Your task to perform on an android device: Open the map Image 0: 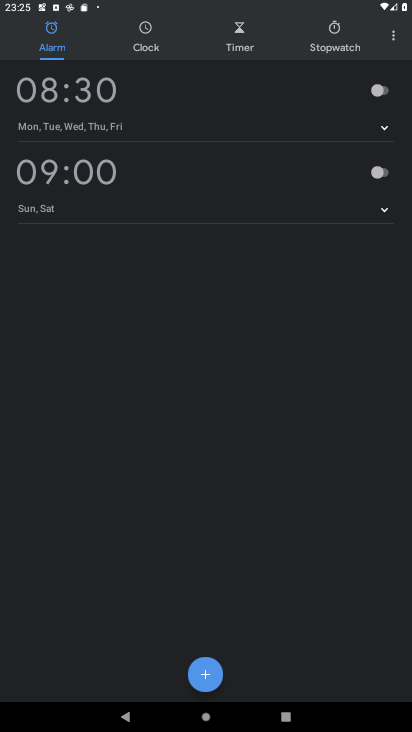
Step 0: press home button
Your task to perform on an android device: Open the map Image 1: 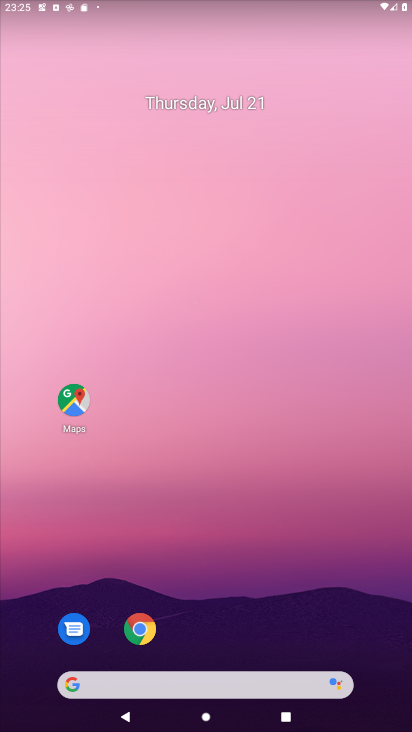
Step 1: drag from (216, 623) to (194, 86)
Your task to perform on an android device: Open the map Image 2: 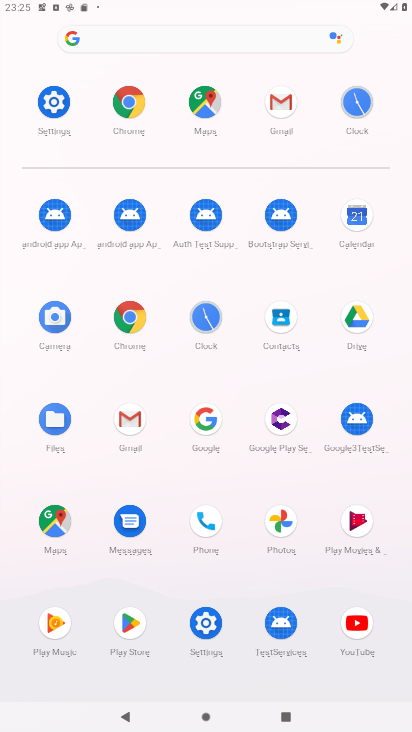
Step 2: click (48, 526)
Your task to perform on an android device: Open the map Image 3: 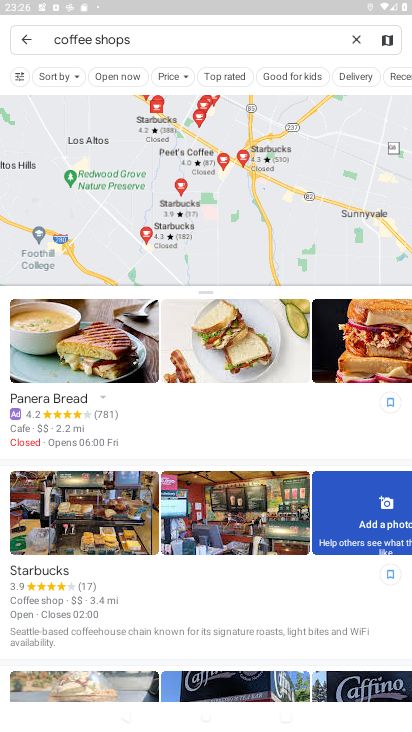
Step 3: task complete